Your task to perform on an android device: Go to notification settings Image 0: 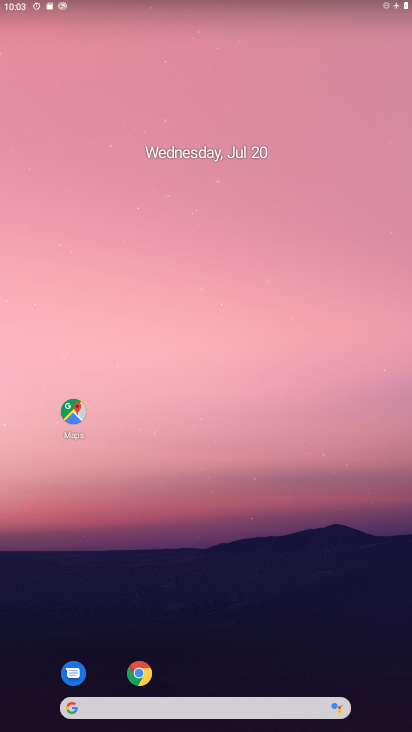
Step 0: drag from (331, 643) to (189, 46)
Your task to perform on an android device: Go to notification settings Image 1: 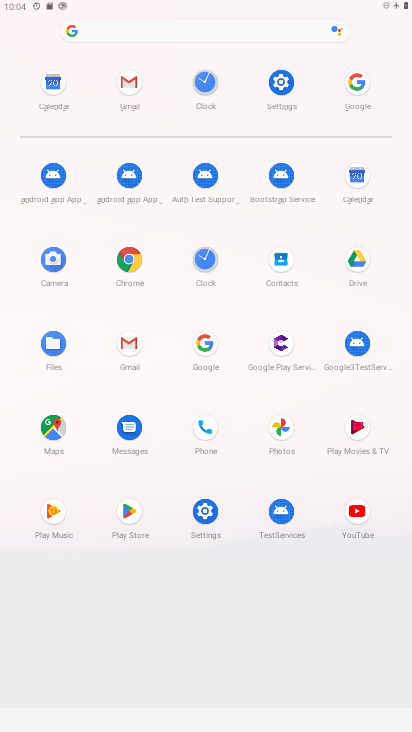
Step 1: click (203, 508)
Your task to perform on an android device: Go to notification settings Image 2: 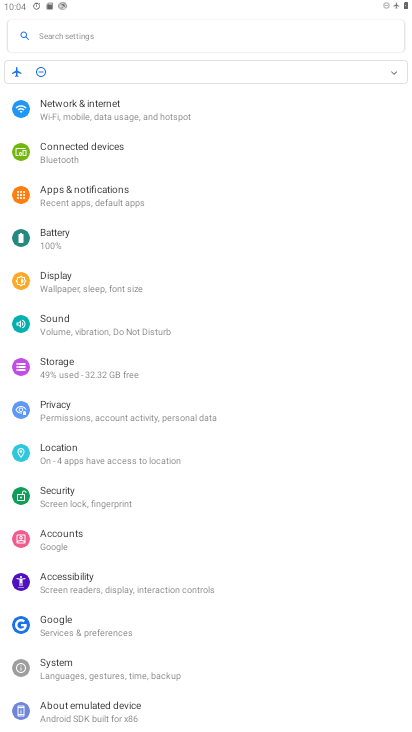
Step 2: click (173, 197)
Your task to perform on an android device: Go to notification settings Image 3: 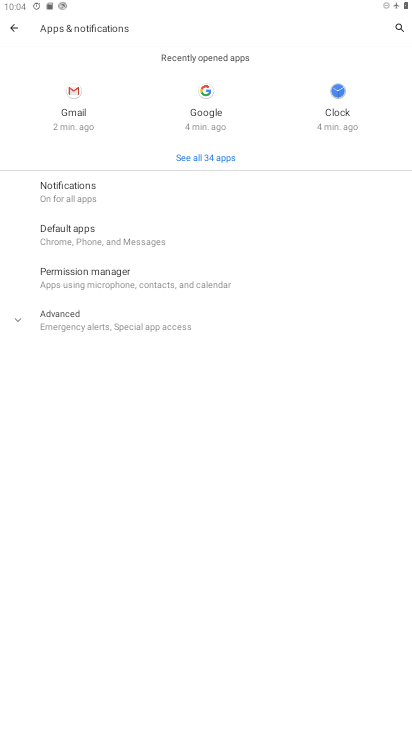
Step 3: click (106, 193)
Your task to perform on an android device: Go to notification settings Image 4: 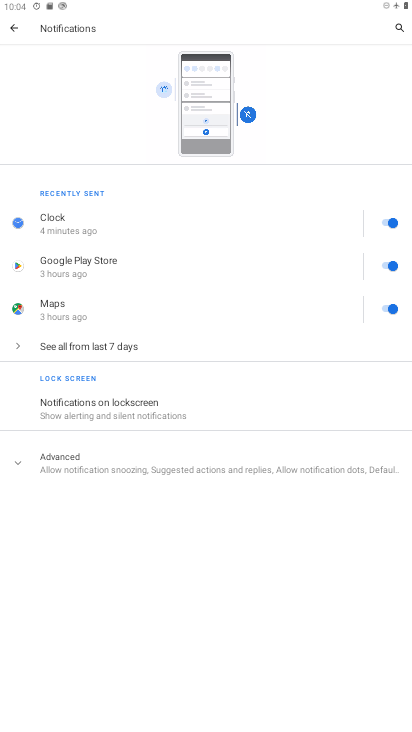
Step 4: task complete